Your task to perform on an android device: turn off airplane mode Image 0: 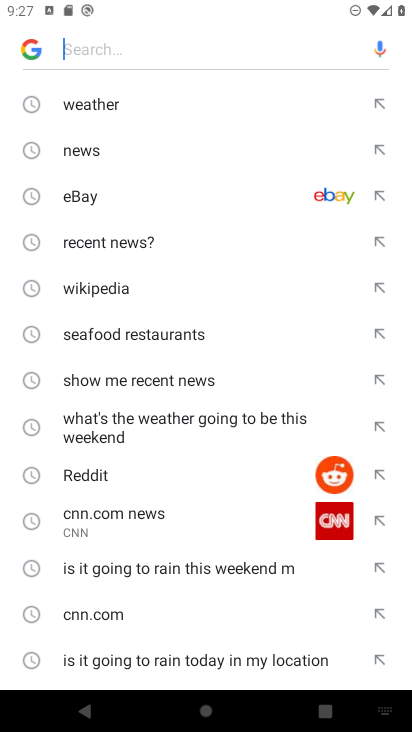
Step 0: drag from (270, 2) to (298, 519)
Your task to perform on an android device: turn off airplane mode Image 1: 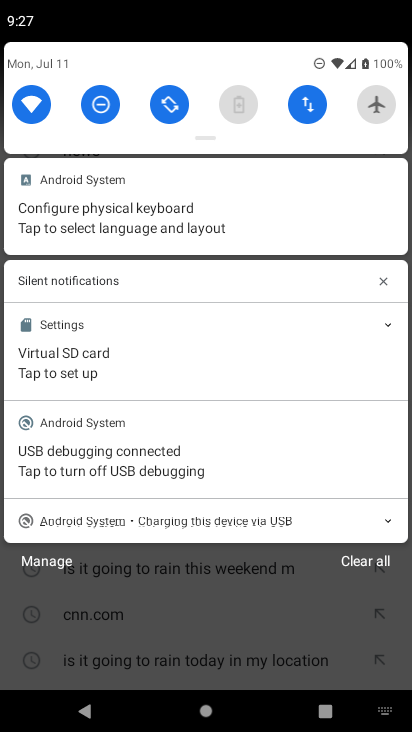
Step 1: task complete